Your task to perform on an android device: See recent photos Image 0: 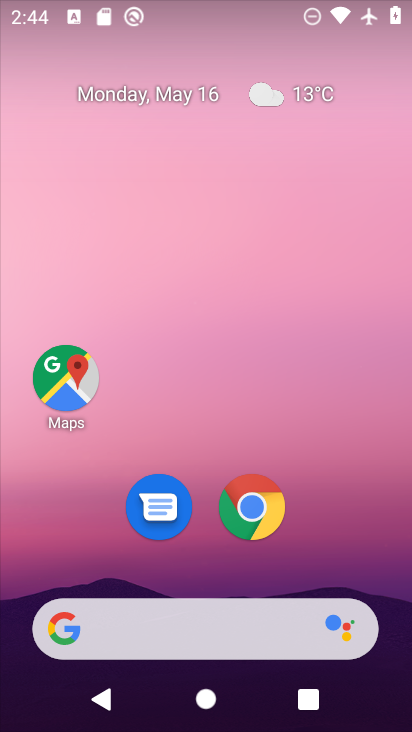
Step 0: drag from (325, 420) to (234, 162)
Your task to perform on an android device: See recent photos Image 1: 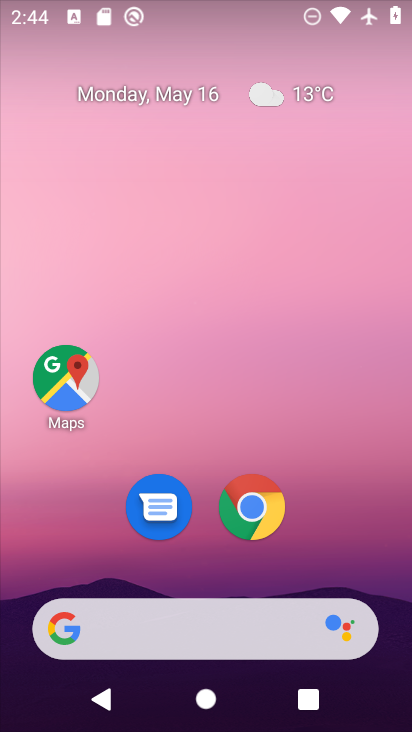
Step 1: drag from (200, 454) to (120, 115)
Your task to perform on an android device: See recent photos Image 2: 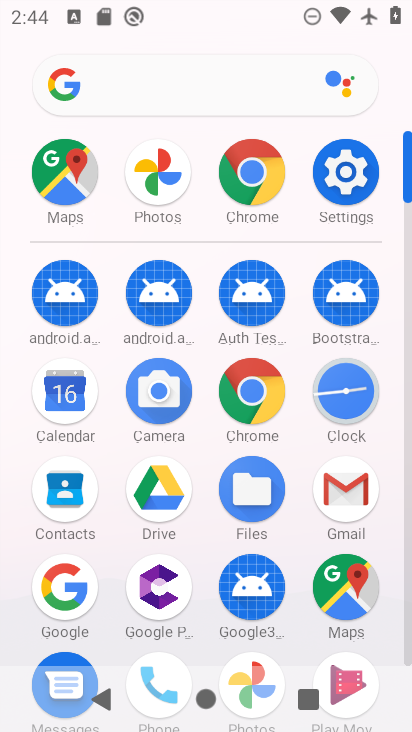
Step 2: drag from (288, 248) to (258, 106)
Your task to perform on an android device: See recent photos Image 3: 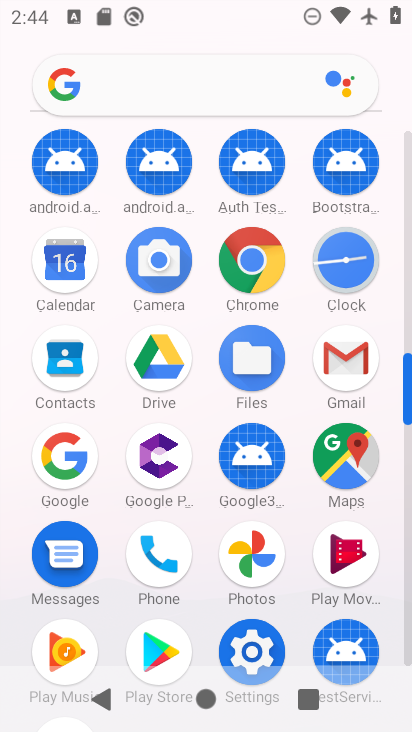
Step 3: click (266, 561)
Your task to perform on an android device: See recent photos Image 4: 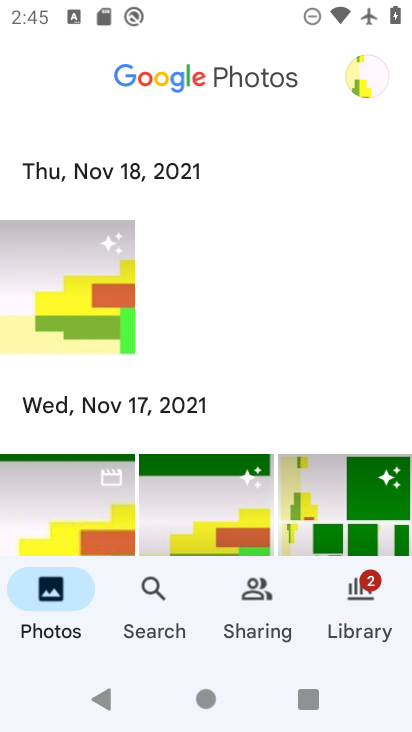
Step 4: click (90, 343)
Your task to perform on an android device: See recent photos Image 5: 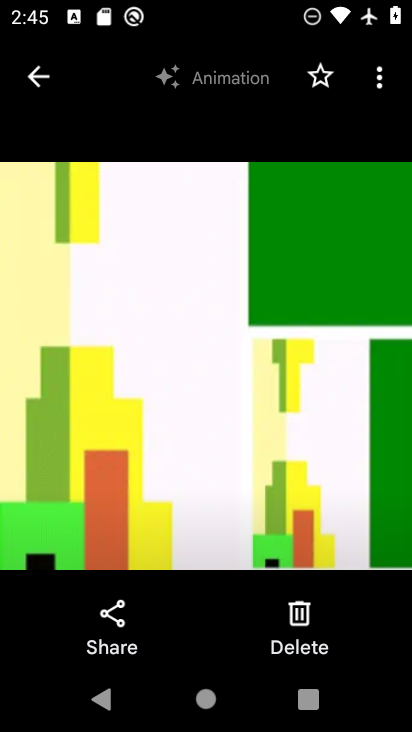
Step 5: click (48, 94)
Your task to perform on an android device: See recent photos Image 6: 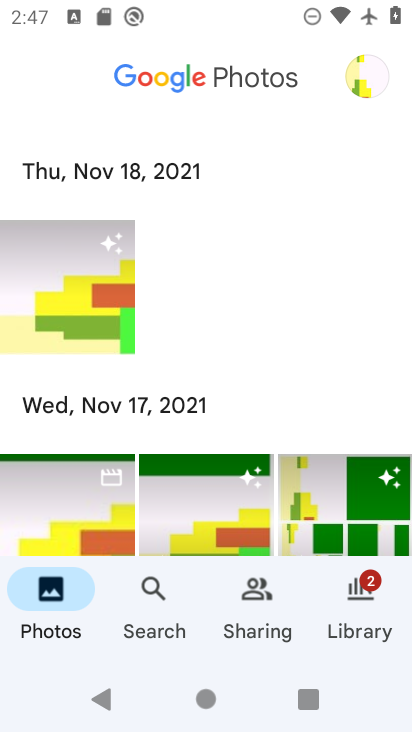
Step 6: task complete